Your task to perform on an android device: open app "Pluto TV - Live TV and Movies" (install if not already installed) Image 0: 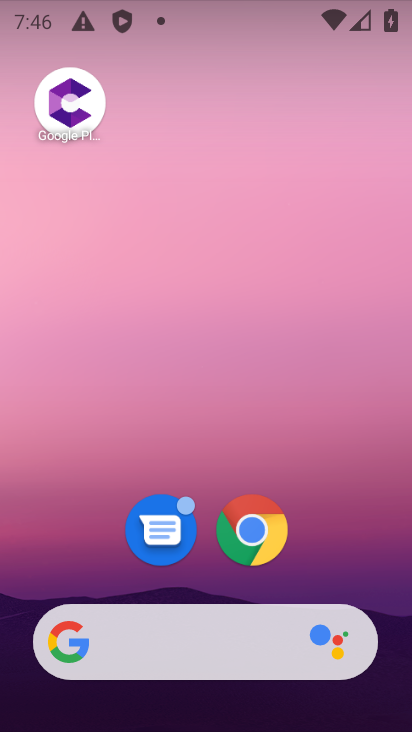
Step 0: drag from (360, 576) to (411, 93)
Your task to perform on an android device: open app "Pluto TV - Live TV and Movies" (install if not already installed) Image 1: 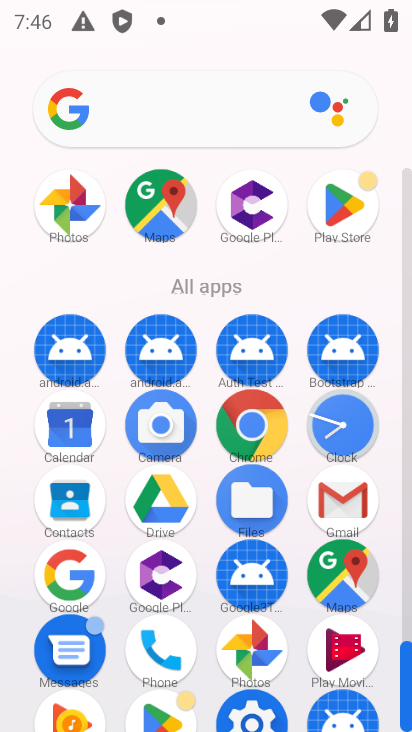
Step 1: click (331, 214)
Your task to perform on an android device: open app "Pluto TV - Live TV and Movies" (install if not already installed) Image 2: 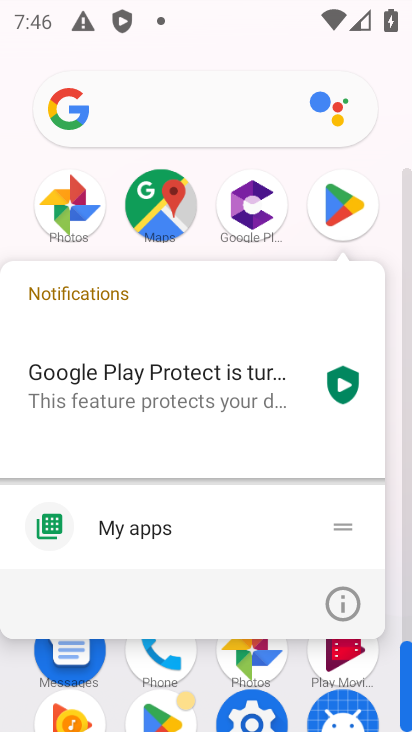
Step 2: click (330, 214)
Your task to perform on an android device: open app "Pluto TV - Live TV and Movies" (install if not already installed) Image 3: 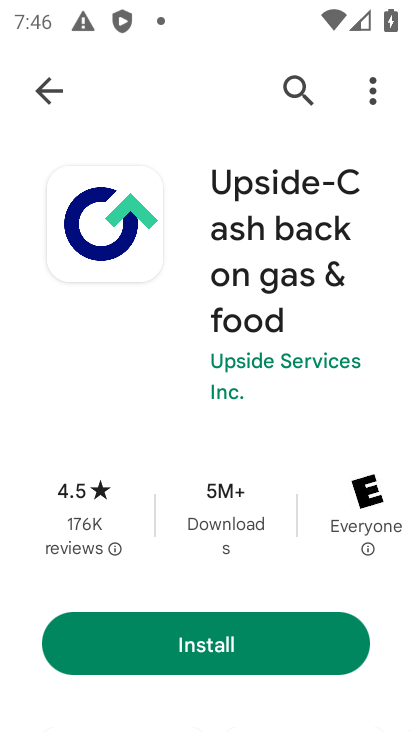
Step 3: click (45, 101)
Your task to perform on an android device: open app "Pluto TV - Live TV and Movies" (install if not already installed) Image 4: 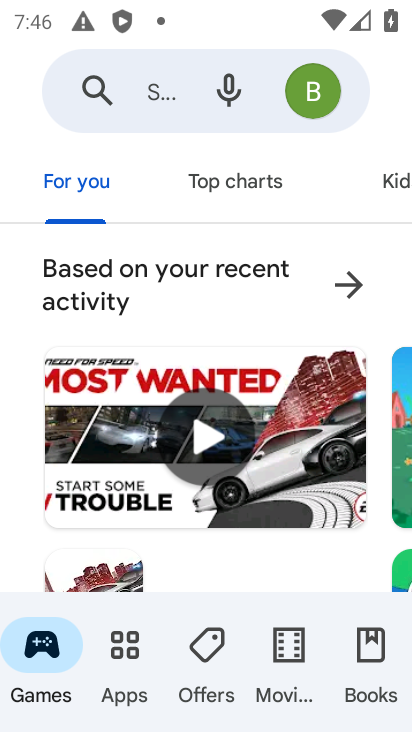
Step 4: click (155, 92)
Your task to perform on an android device: open app "Pluto TV - Live TV and Movies" (install if not already installed) Image 5: 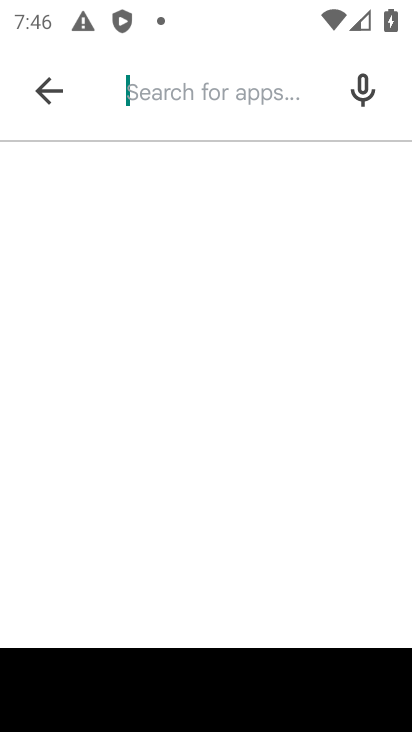
Step 5: type "Pluto TV - Live TV and Movie"
Your task to perform on an android device: open app "Pluto TV - Live TV and Movies" (install if not already installed) Image 6: 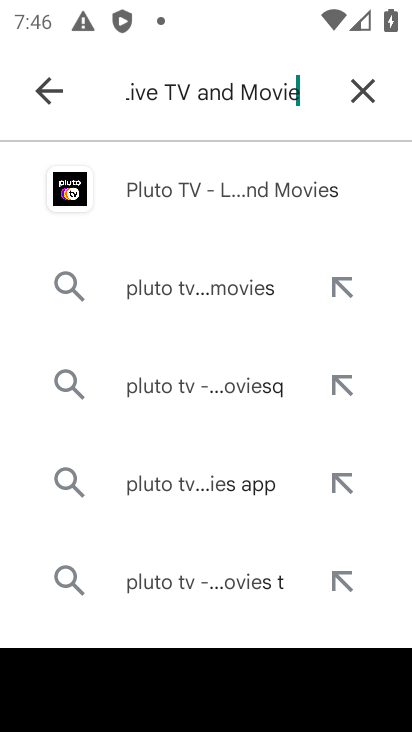
Step 6: click (193, 194)
Your task to perform on an android device: open app "Pluto TV - Live TV and Movies" (install if not already installed) Image 7: 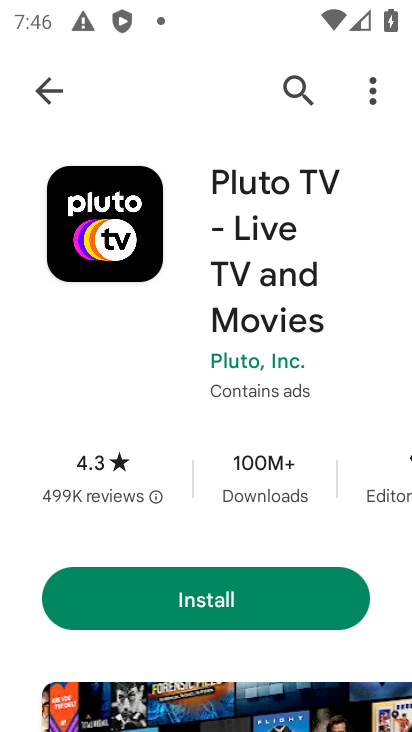
Step 7: click (220, 601)
Your task to perform on an android device: open app "Pluto TV - Live TV and Movies" (install if not already installed) Image 8: 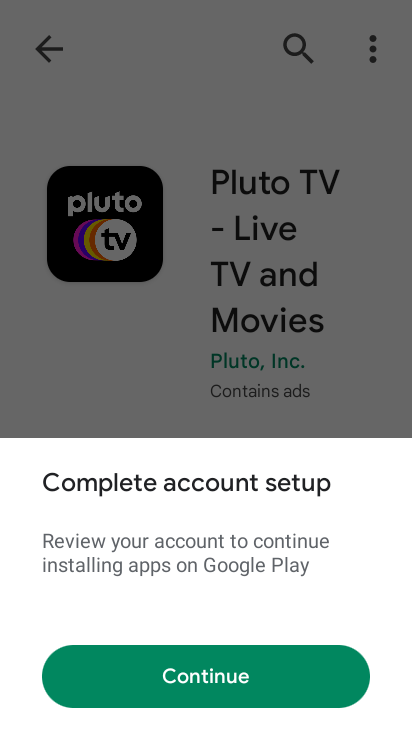
Step 8: click (239, 672)
Your task to perform on an android device: open app "Pluto TV - Live TV and Movies" (install if not already installed) Image 9: 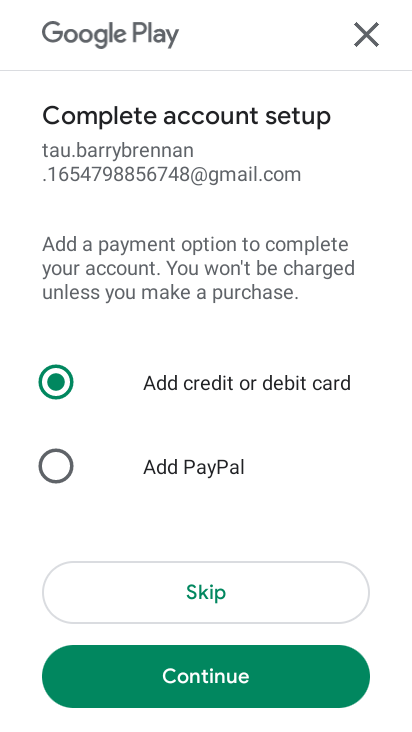
Step 9: click (193, 596)
Your task to perform on an android device: open app "Pluto TV - Live TV and Movies" (install if not already installed) Image 10: 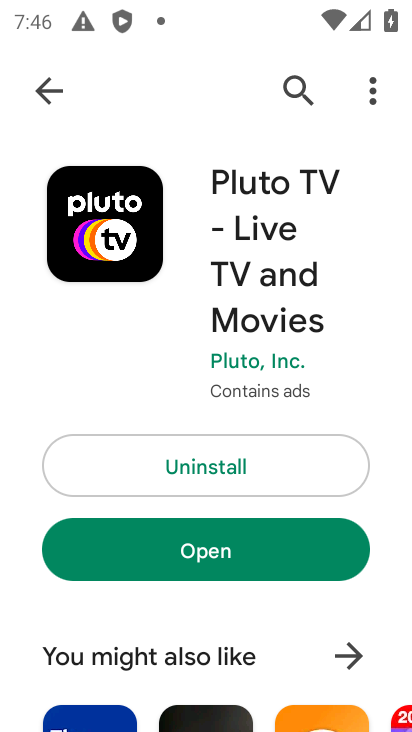
Step 10: click (197, 557)
Your task to perform on an android device: open app "Pluto TV - Live TV and Movies" (install if not already installed) Image 11: 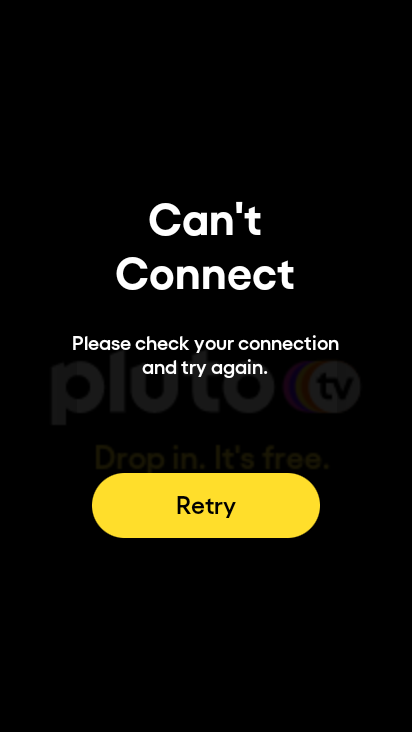
Step 11: click (207, 504)
Your task to perform on an android device: open app "Pluto TV - Live TV and Movies" (install if not already installed) Image 12: 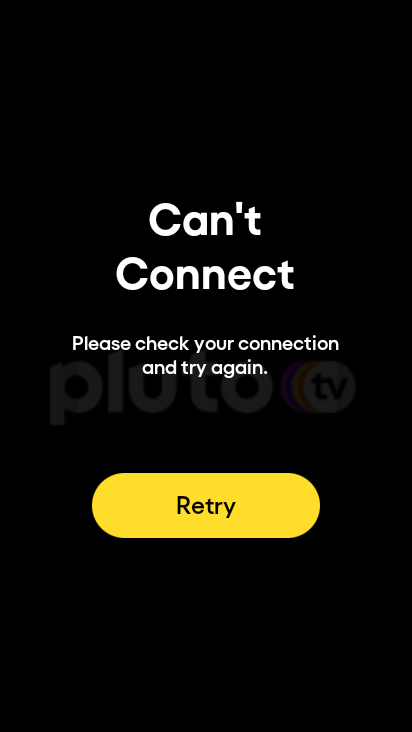
Step 12: task complete